Your task to perform on an android device: change text size in settings app Image 0: 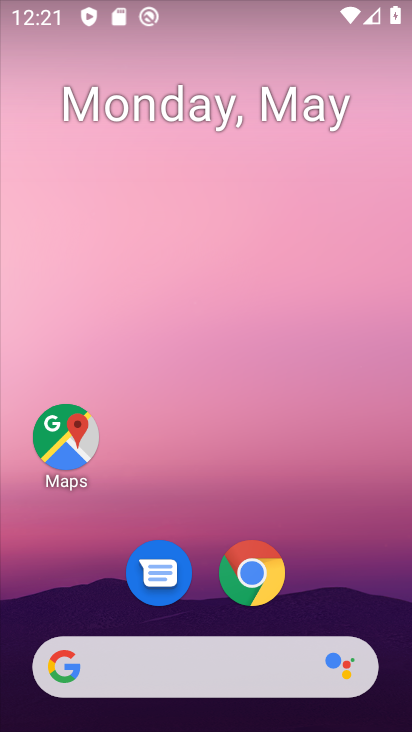
Step 0: drag from (215, 607) to (411, 230)
Your task to perform on an android device: change text size in settings app Image 1: 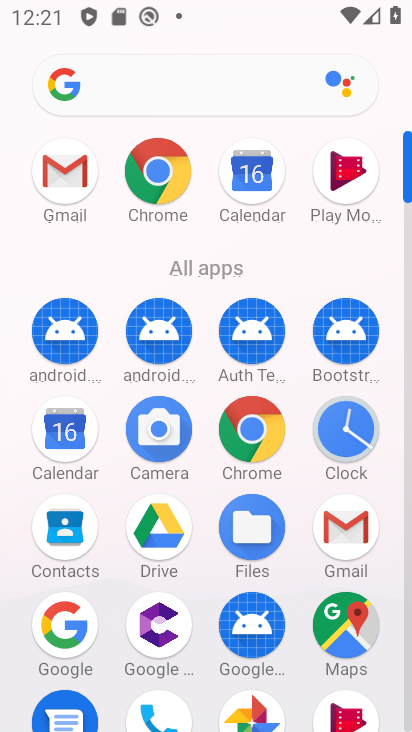
Step 1: drag from (193, 674) to (184, 395)
Your task to perform on an android device: change text size in settings app Image 2: 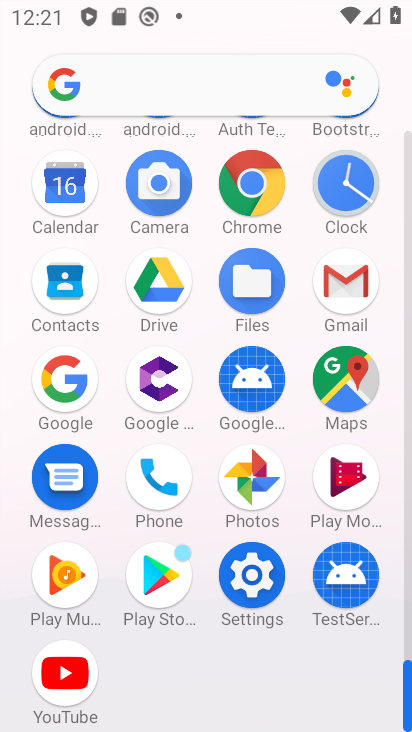
Step 2: click (249, 576)
Your task to perform on an android device: change text size in settings app Image 3: 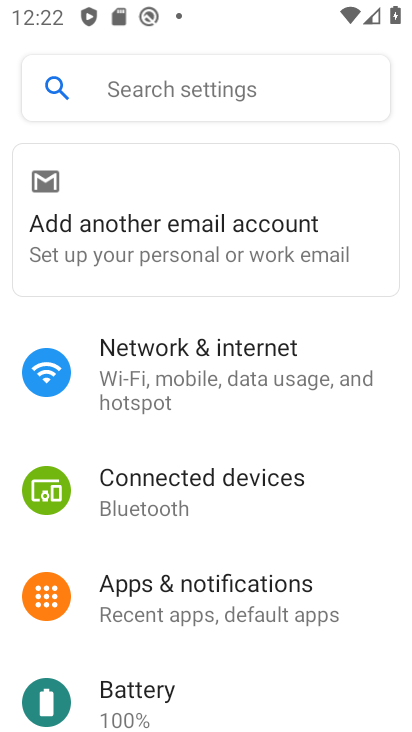
Step 3: click (221, 392)
Your task to perform on an android device: change text size in settings app Image 4: 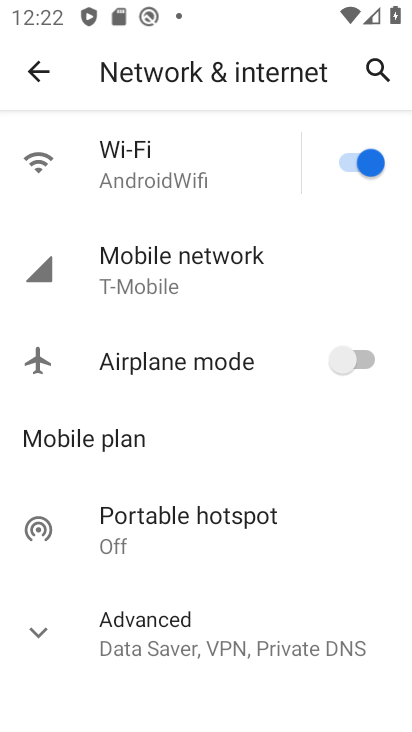
Step 4: click (186, 255)
Your task to perform on an android device: change text size in settings app Image 5: 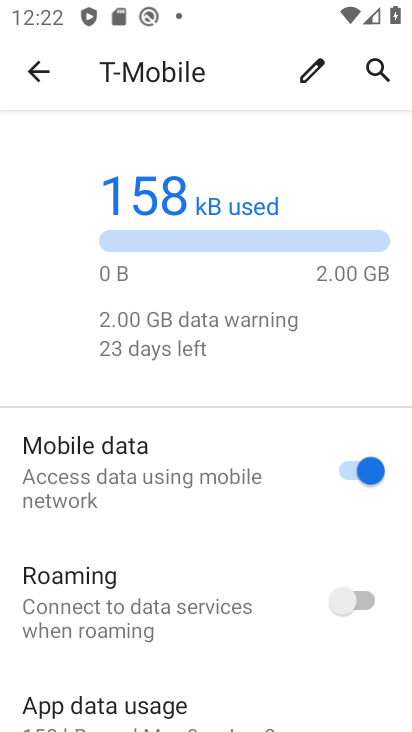
Step 5: task complete